Your task to perform on an android device: Search for Italian restaurants on Maps Image 0: 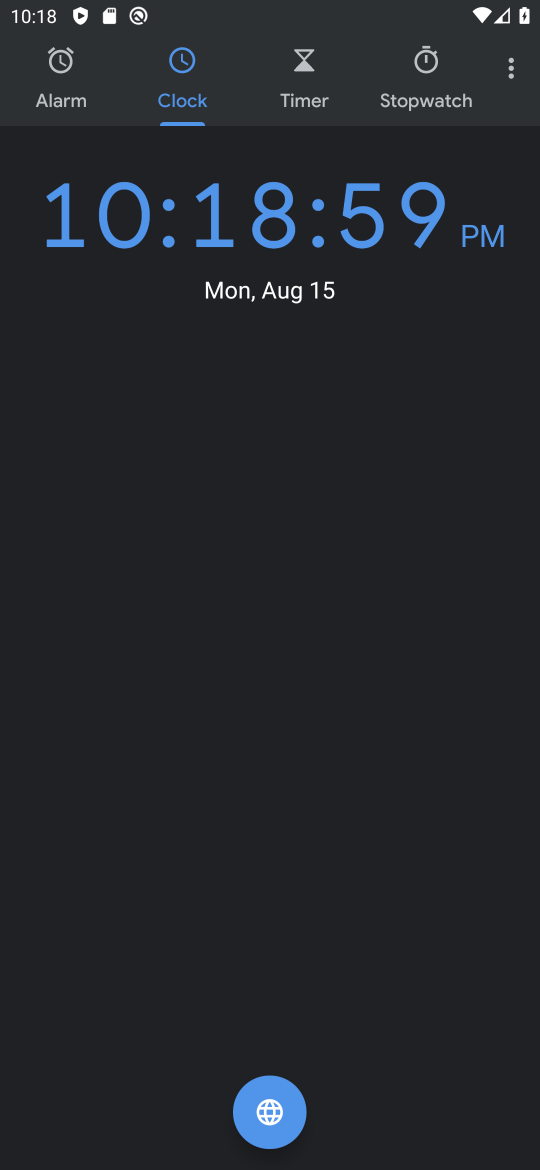
Step 0: press back button
Your task to perform on an android device: Search for Italian restaurants on Maps Image 1: 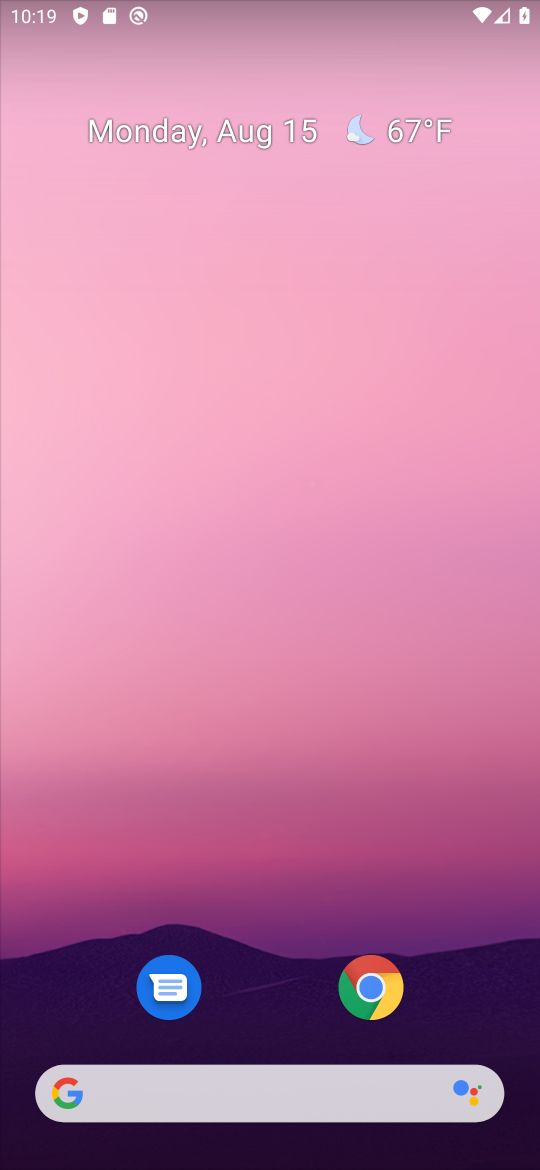
Step 1: drag from (232, 1045) to (62, 111)
Your task to perform on an android device: Search for Italian restaurants on Maps Image 2: 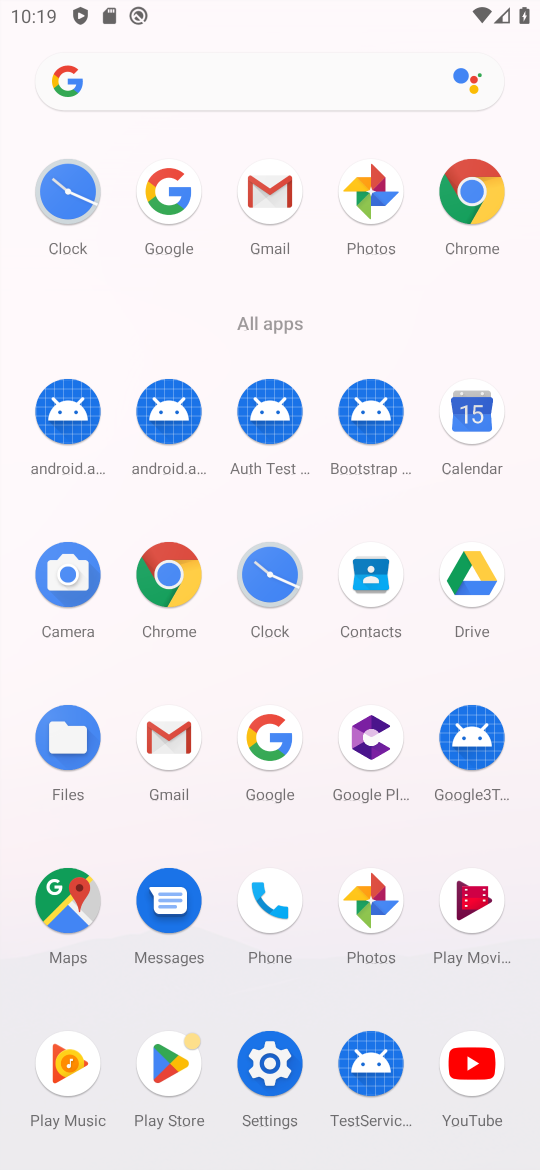
Step 2: click (75, 919)
Your task to perform on an android device: Search for Italian restaurants on Maps Image 3: 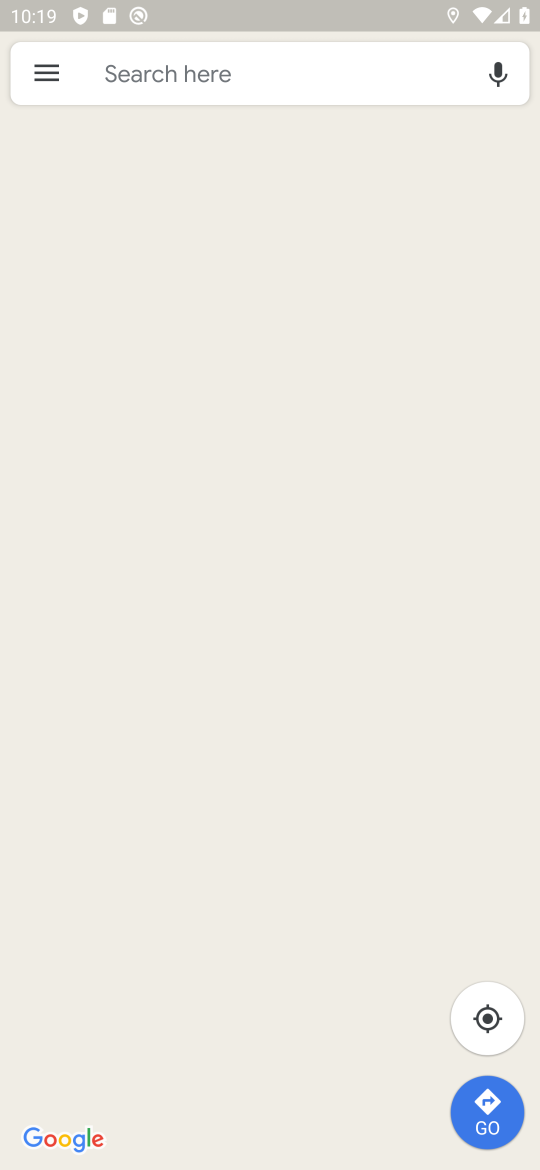
Step 3: click (248, 91)
Your task to perform on an android device: Search for Italian restaurants on Maps Image 4: 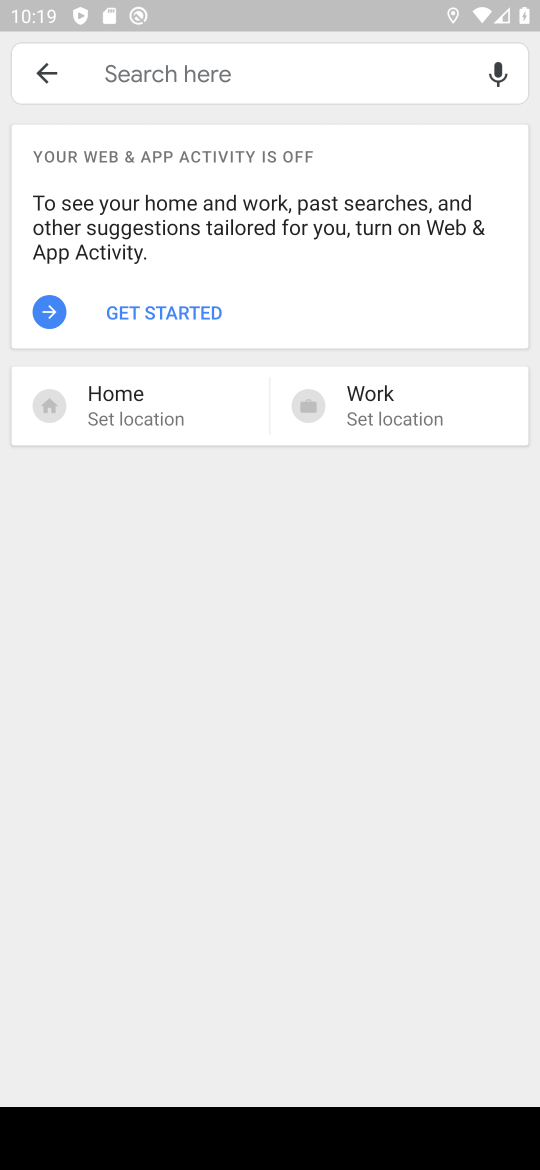
Step 4: click (179, 313)
Your task to perform on an android device: Search for Italian restaurants on Maps Image 5: 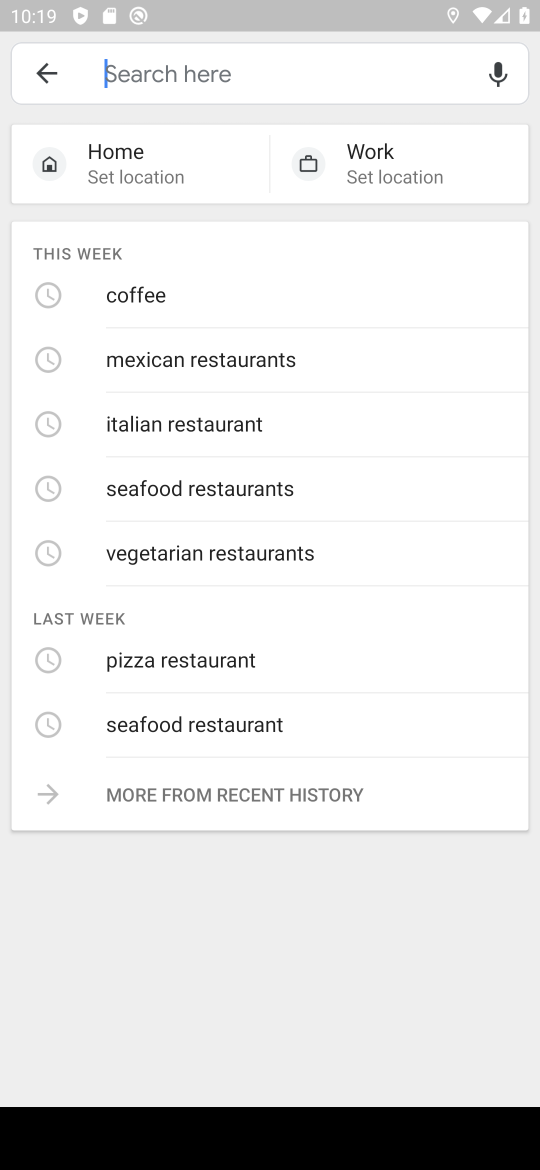
Step 5: click (110, 323)
Your task to perform on an android device: Search for Italian restaurants on Maps Image 6: 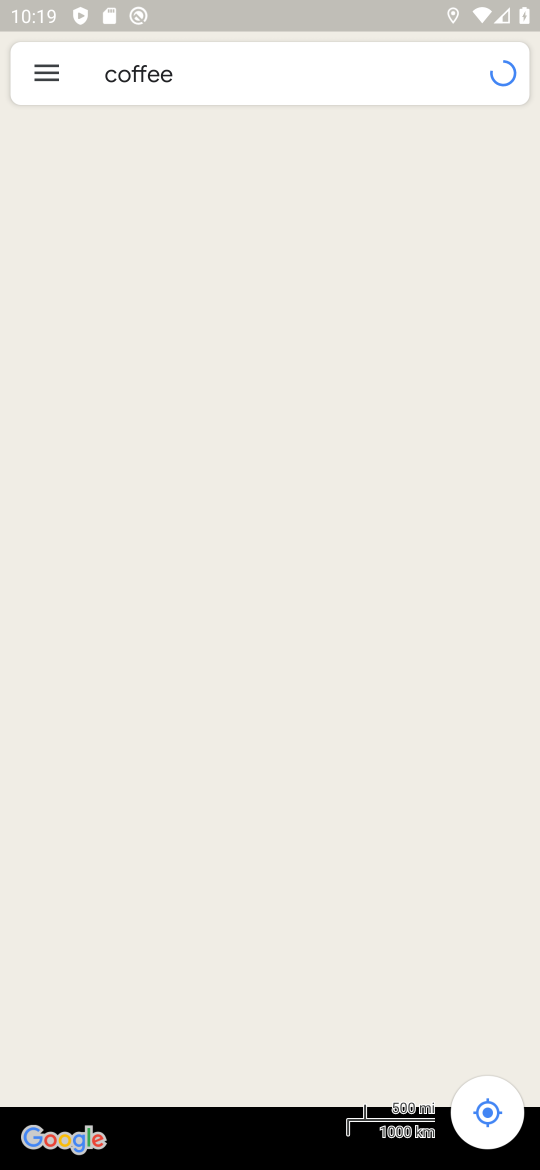
Step 6: click (272, 80)
Your task to perform on an android device: Search for Italian restaurants on Maps Image 7: 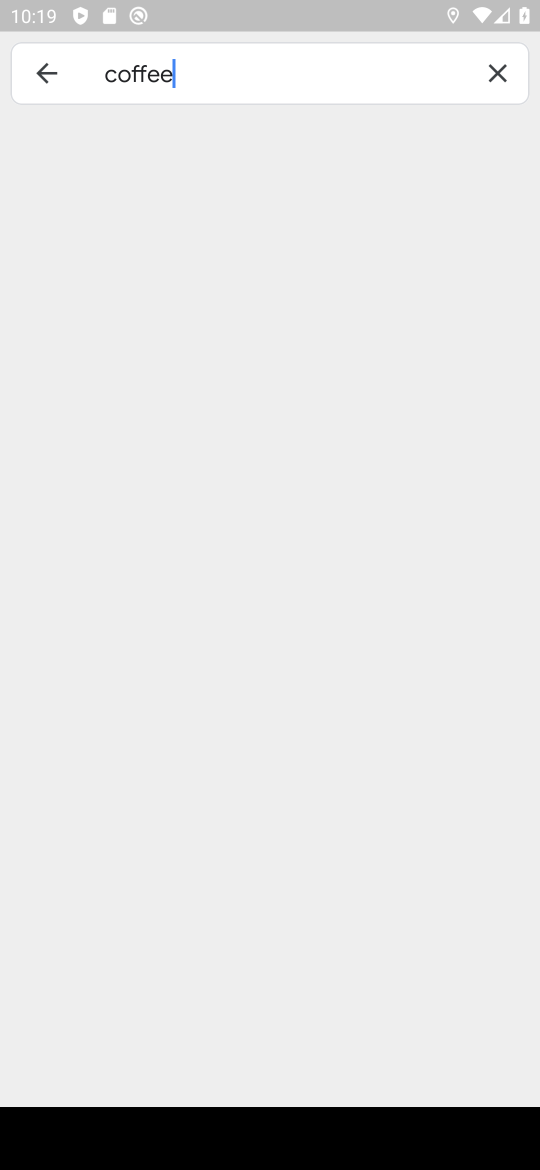
Step 7: click (491, 69)
Your task to perform on an android device: Search for Italian restaurants on Maps Image 8: 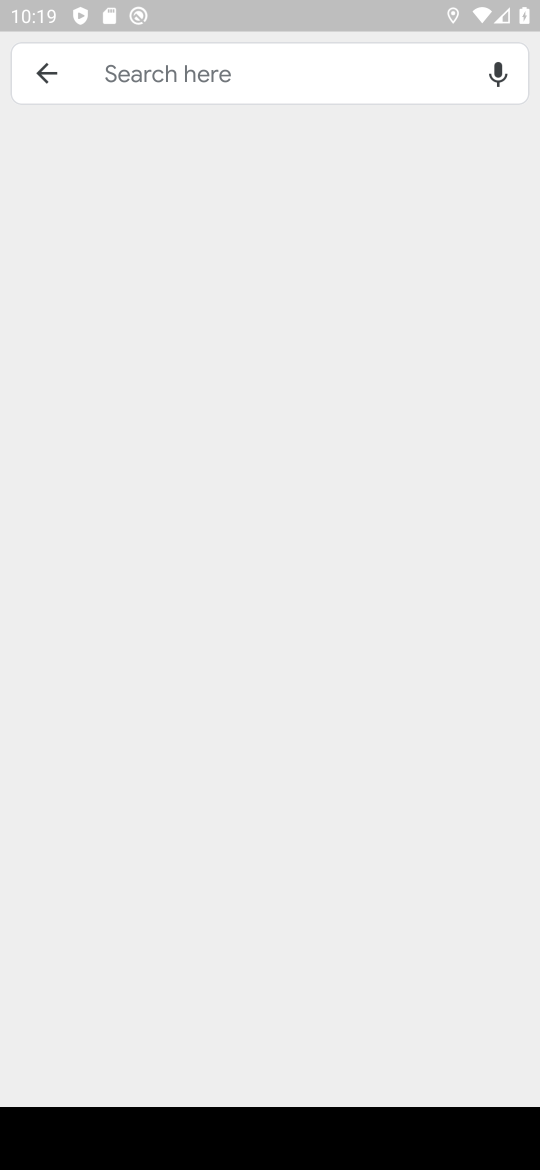
Step 8: click (156, 81)
Your task to perform on an android device: Search for Italian restaurants on Maps Image 9: 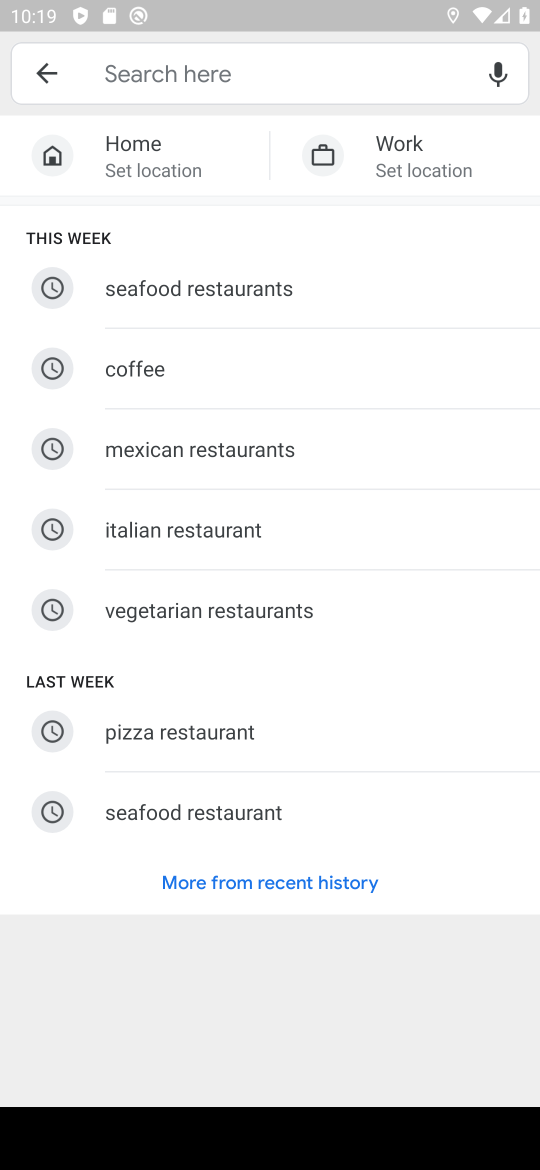
Step 9: click (197, 526)
Your task to perform on an android device: Search for Italian restaurants on Maps Image 10: 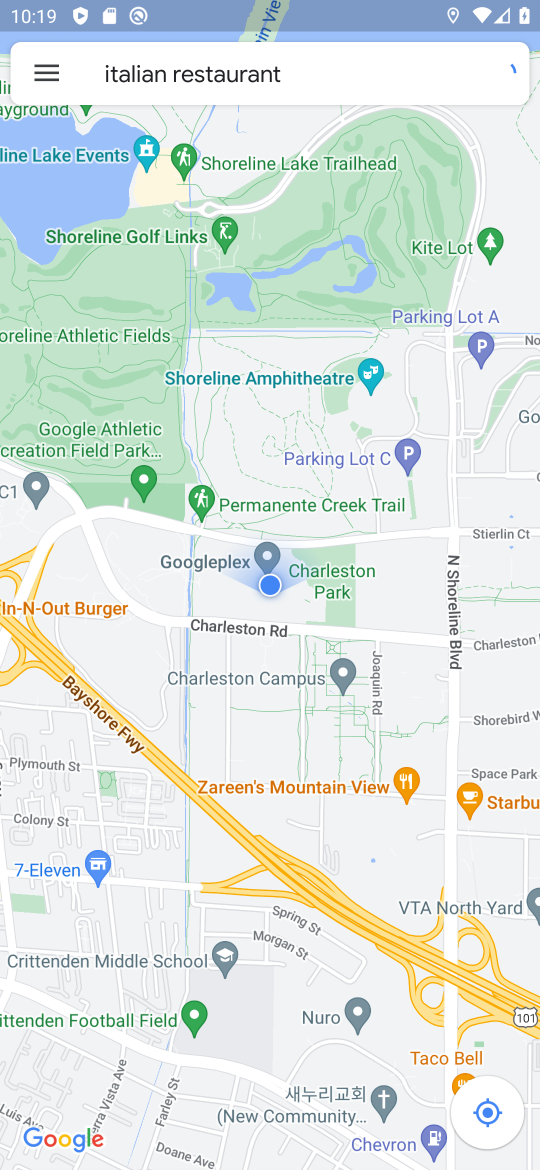
Step 10: task complete